Your task to perform on an android device: Open settings on Google Maps Image 0: 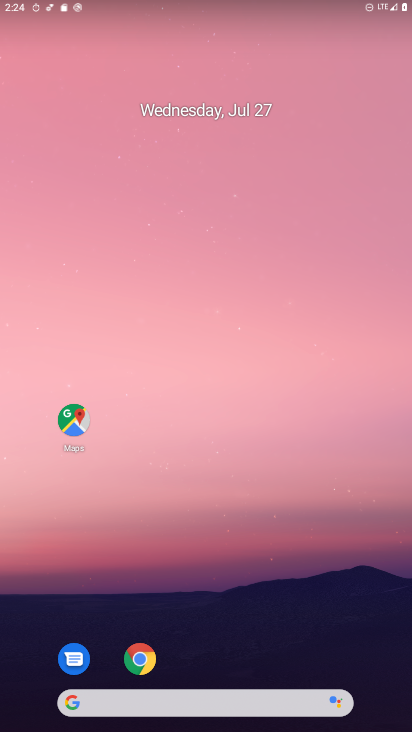
Step 0: drag from (285, 647) to (251, 46)
Your task to perform on an android device: Open settings on Google Maps Image 1: 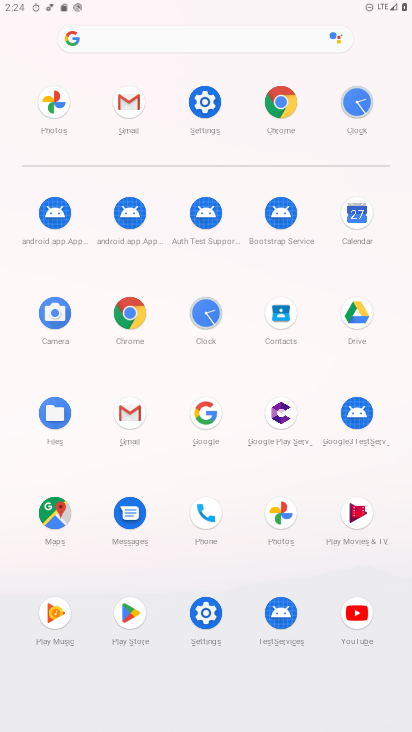
Step 1: click (59, 512)
Your task to perform on an android device: Open settings on Google Maps Image 2: 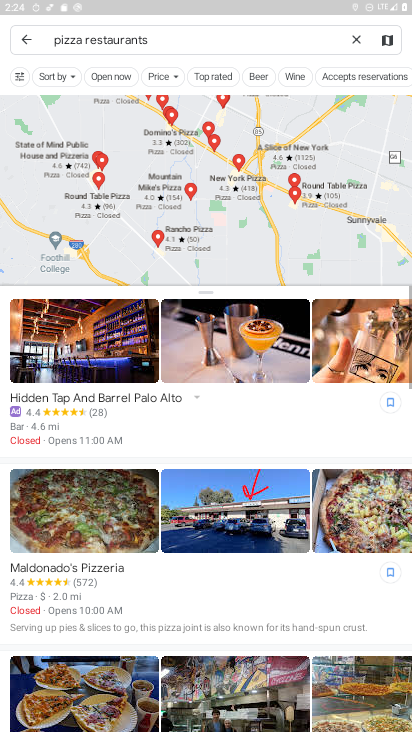
Step 2: click (22, 32)
Your task to perform on an android device: Open settings on Google Maps Image 3: 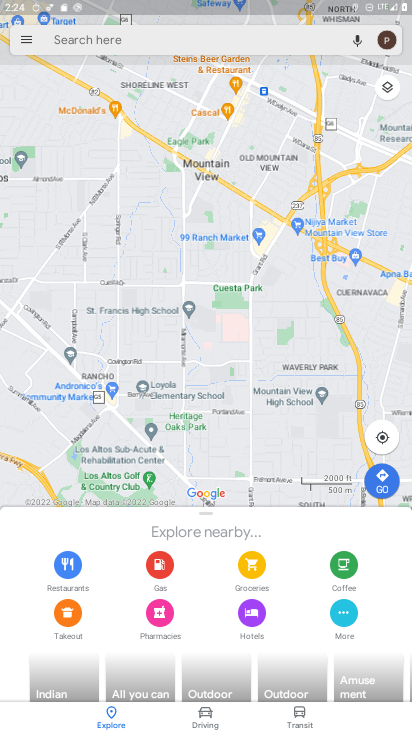
Step 3: click (23, 38)
Your task to perform on an android device: Open settings on Google Maps Image 4: 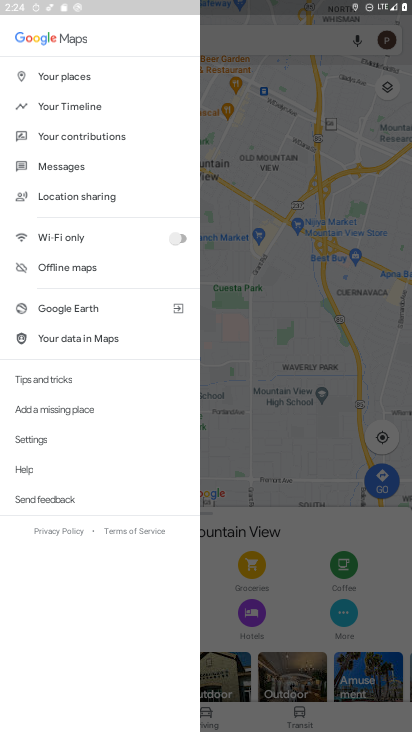
Step 4: click (48, 443)
Your task to perform on an android device: Open settings on Google Maps Image 5: 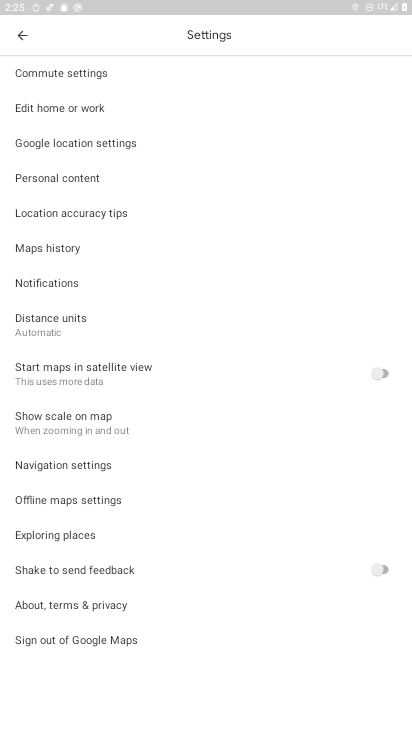
Step 5: task complete